Your task to perform on an android device: turn off data saver in the chrome app Image 0: 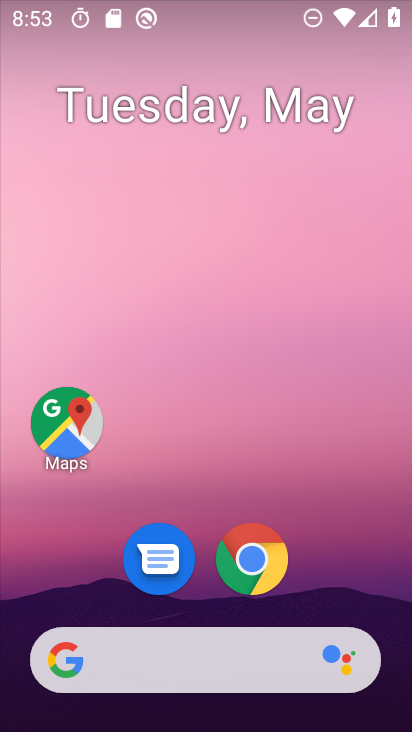
Step 0: drag from (389, 628) to (282, 84)
Your task to perform on an android device: turn off data saver in the chrome app Image 1: 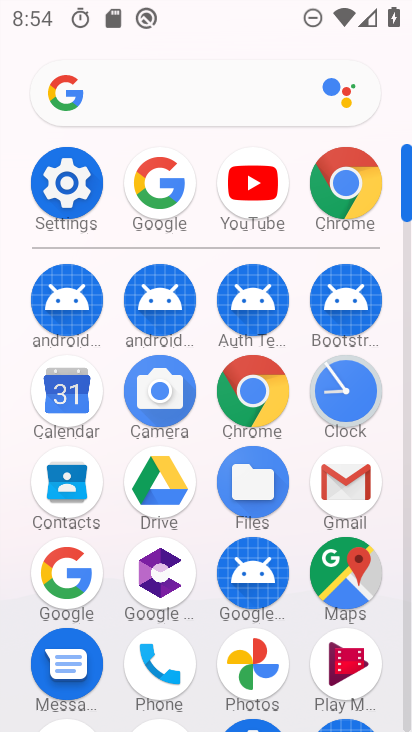
Step 1: click (350, 182)
Your task to perform on an android device: turn off data saver in the chrome app Image 2: 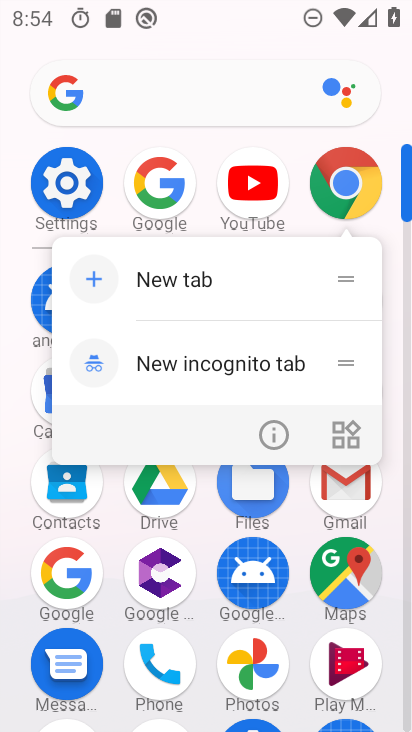
Step 2: click (72, 186)
Your task to perform on an android device: turn off data saver in the chrome app Image 3: 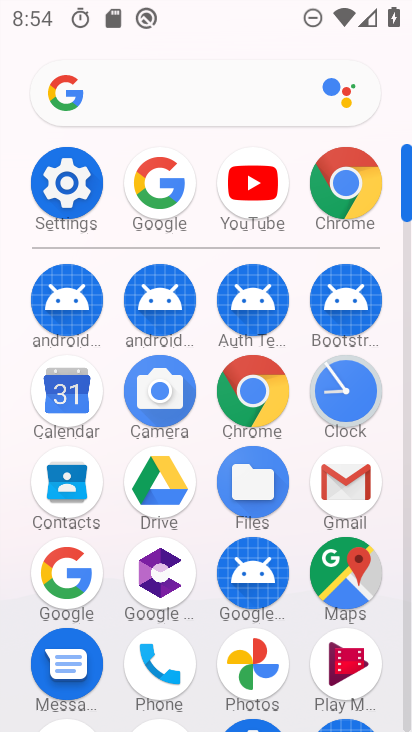
Step 3: click (360, 184)
Your task to perform on an android device: turn off data saver in the chrome app Image 4: 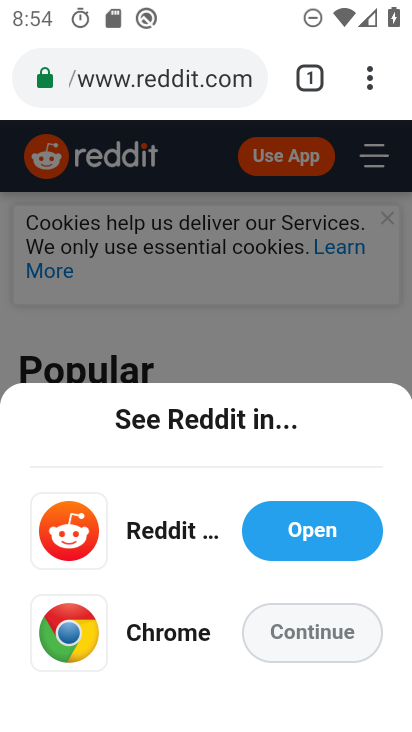
Step 4: press back button
Your task to perform on an android device: turn off data saver in the chrome app Image 5: 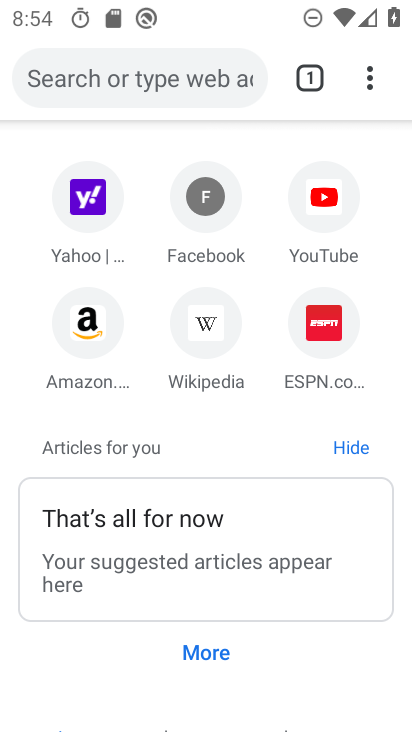
Step 5: click (370, 73)
Your task to perform on an android device: turn off data saver in the chrome app Image 6: 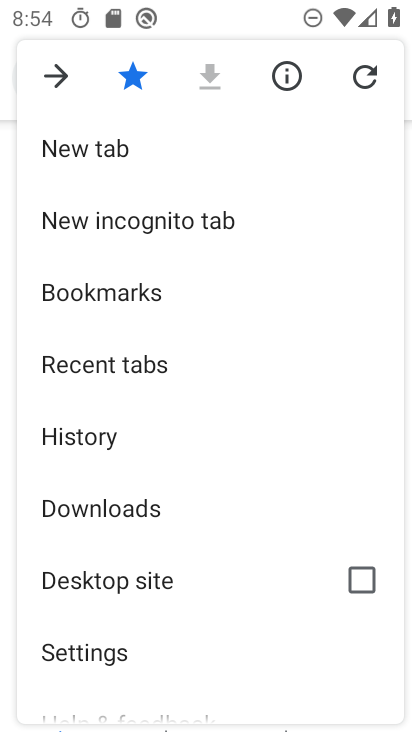
Step 6: click (108, 661)
Your task to perform on an android device: turn off data saver in the chrome app Image 7: 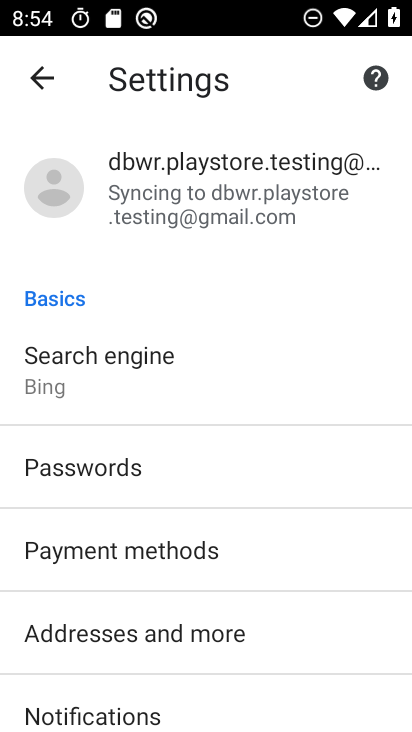
Step 7: drag from (128, 657) to (165, 119)
Your task to perform on an android device: turn off data saver in the chrome app Image 8: 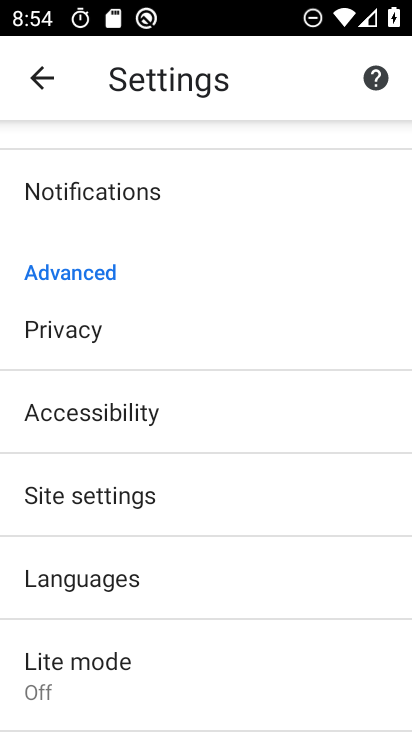
Step 8: click (145, 665)
Your task to perform on an android device: turn off data saver in the chrome app Image 9: 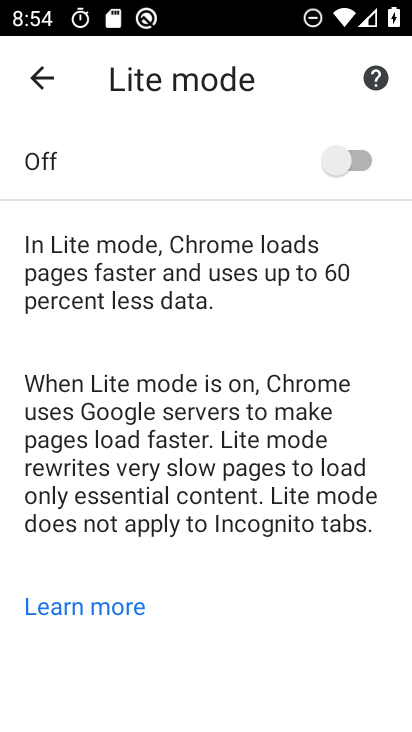
Step 9: task complete